Your task to perform on an android device: Open Chrome and go to settings Image 0: 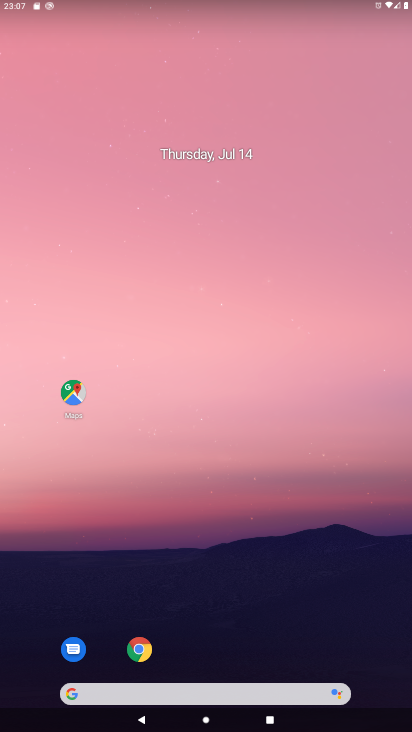
Step 0: click (143, 647)
Your task to perform on an android device: Open Chrome and go to settings Image 1: 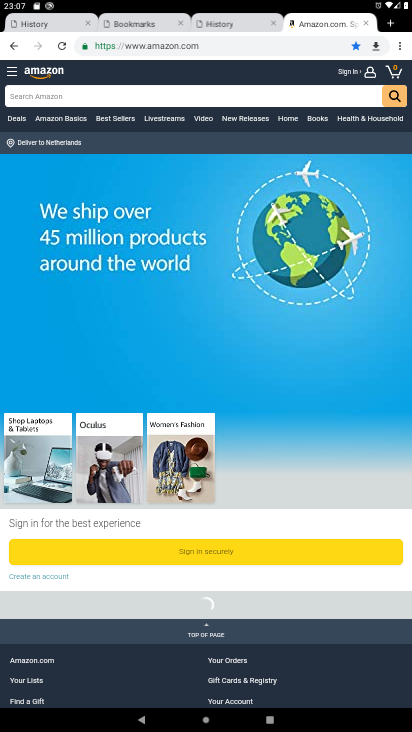
Step 1: click (398, 44)
Your task to perform on an android device: Open Chrome and go to settings Image 2: 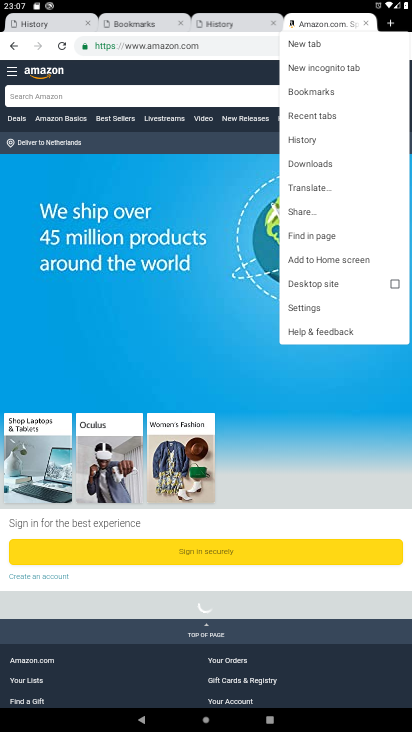
Step 2: click (319, 311)
Your task to perform on an android device: Open Chrome and go to settings Image 3: 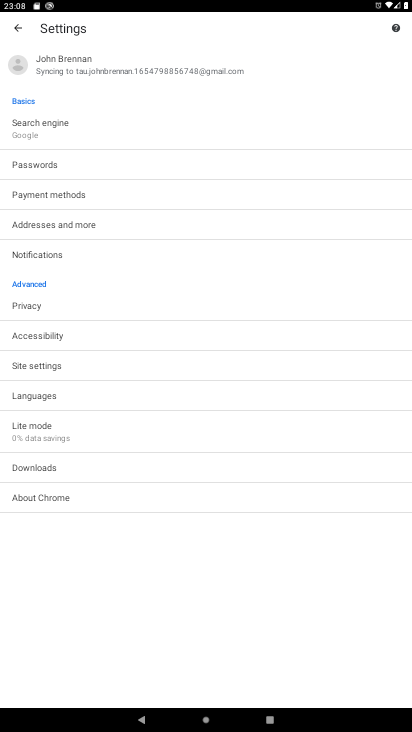
Step 3: task complete